Your task to perform on an android device: turn on translation in the chrome app Image 0: 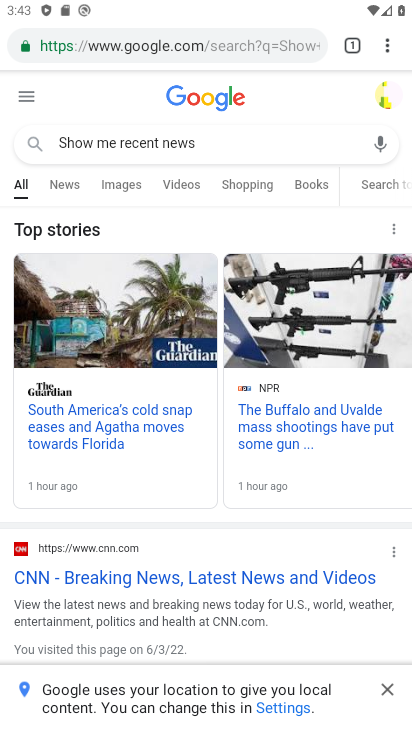
Step 0: press home button
Your task to perform on an android device: turn on translation in the chrome app Image 1: 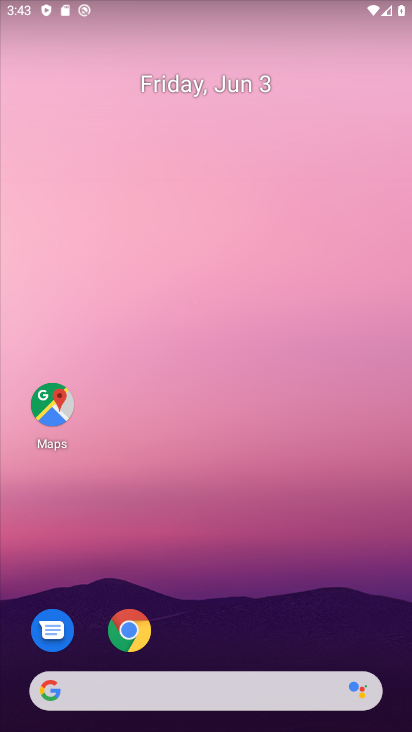
Step 1: drag from (247, 645) to (409, 481)
Your task to perform on an android device: turn on translation in the chrome app Image 2: 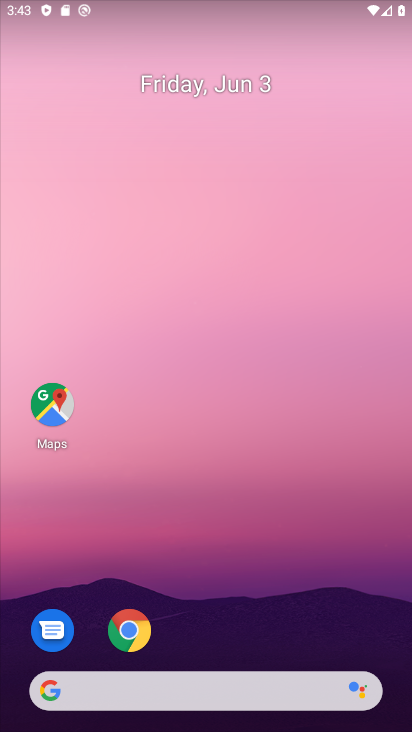
Step 2: drag from (242, 604) to (184, 98)
Your task to perform on an android device: turn on translation in the chrome app Image 3: 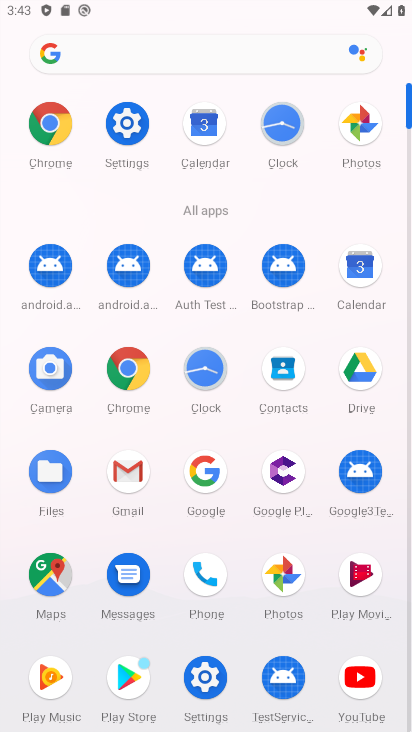
Step 3: click (120, 364)
Your task to perform on an android device: turn on translation in the chrome app Image 4: 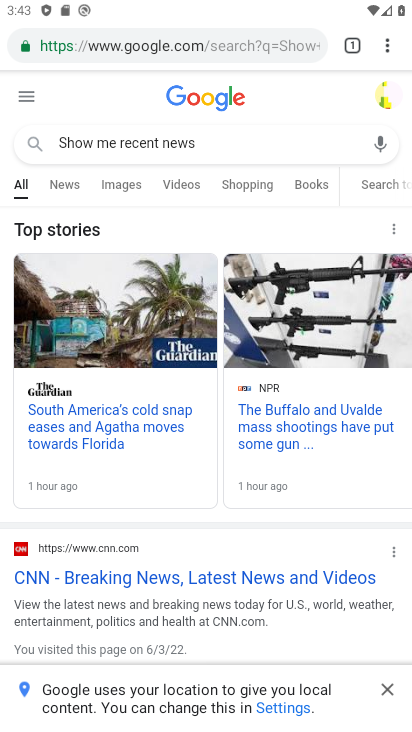
Step 4: drag from (384, 42) to (249, 504)
Your task to perform on an android device: turn on translation in the chrome app Image 5: 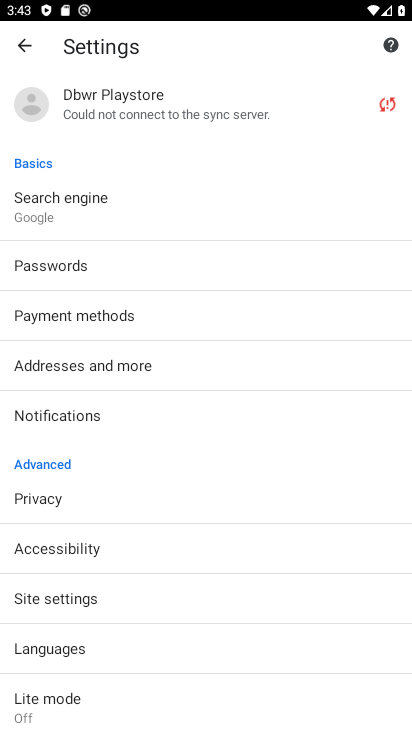
Step 5: click (105, 645)
Your task to perform on an android device: turn on translation in the chrome app Image 6: 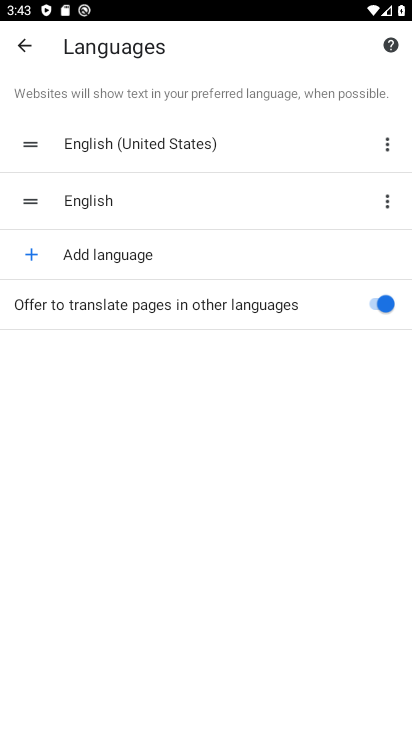
Step 6: task complete